Your task to perform on an android device: Open Wikipedia Image 0: 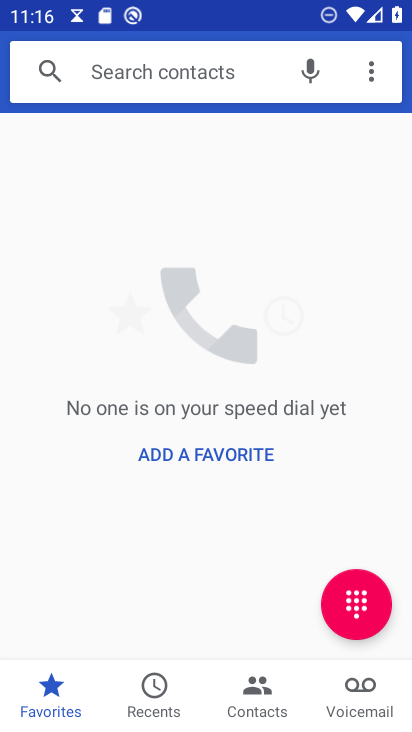
Step 0: press home button
Your task to perform on an android device: Open Wikipedia Image 1: 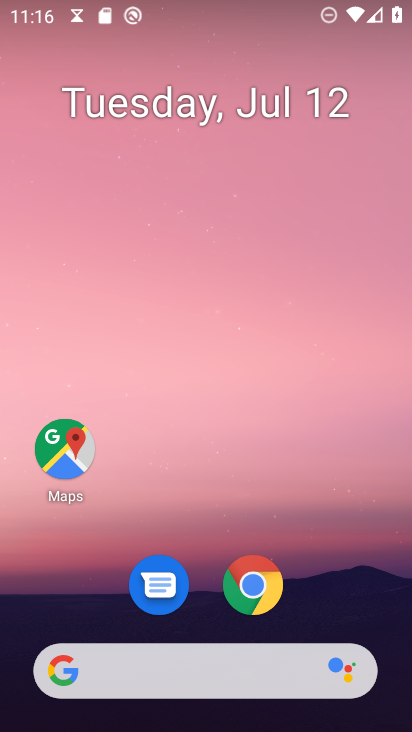
Step 1: click (253, 588)
Your task to perform on an android device: Open Wikipedia Image 2: 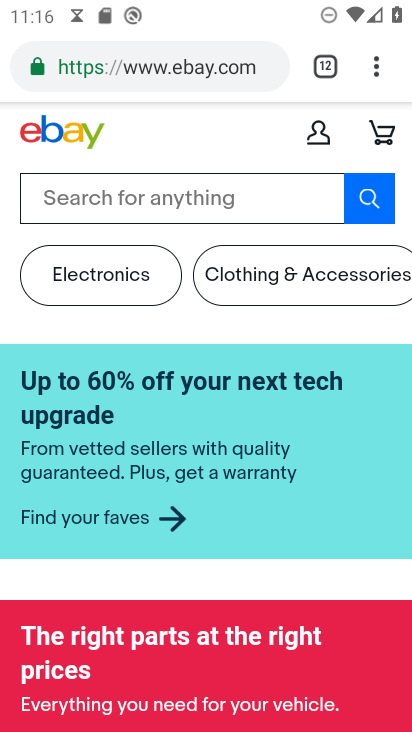
Step 2: drag from (376, 76) to (201, 135)
Your task to perform on an android device: Open Wikipedia Image 3: 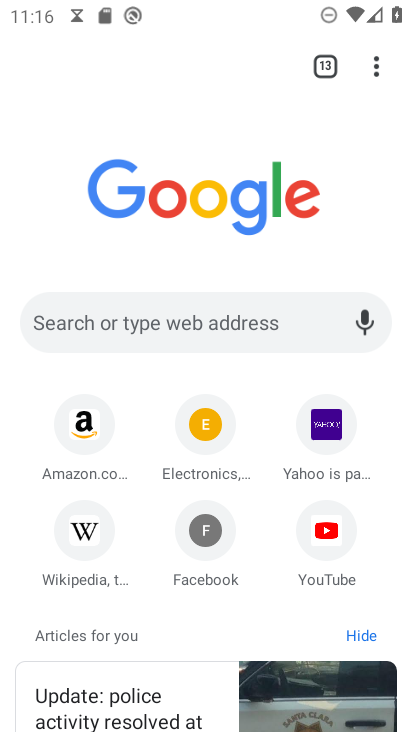
Step 3: click (83, 517)
Your task to perform on an android device: Open Wikipedia Image 4: 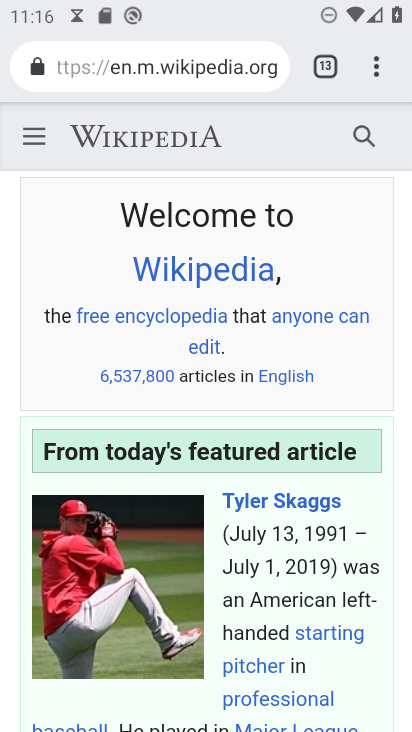
Step 4: task complete